Your task to perform on an android device: set the timer Image 0: 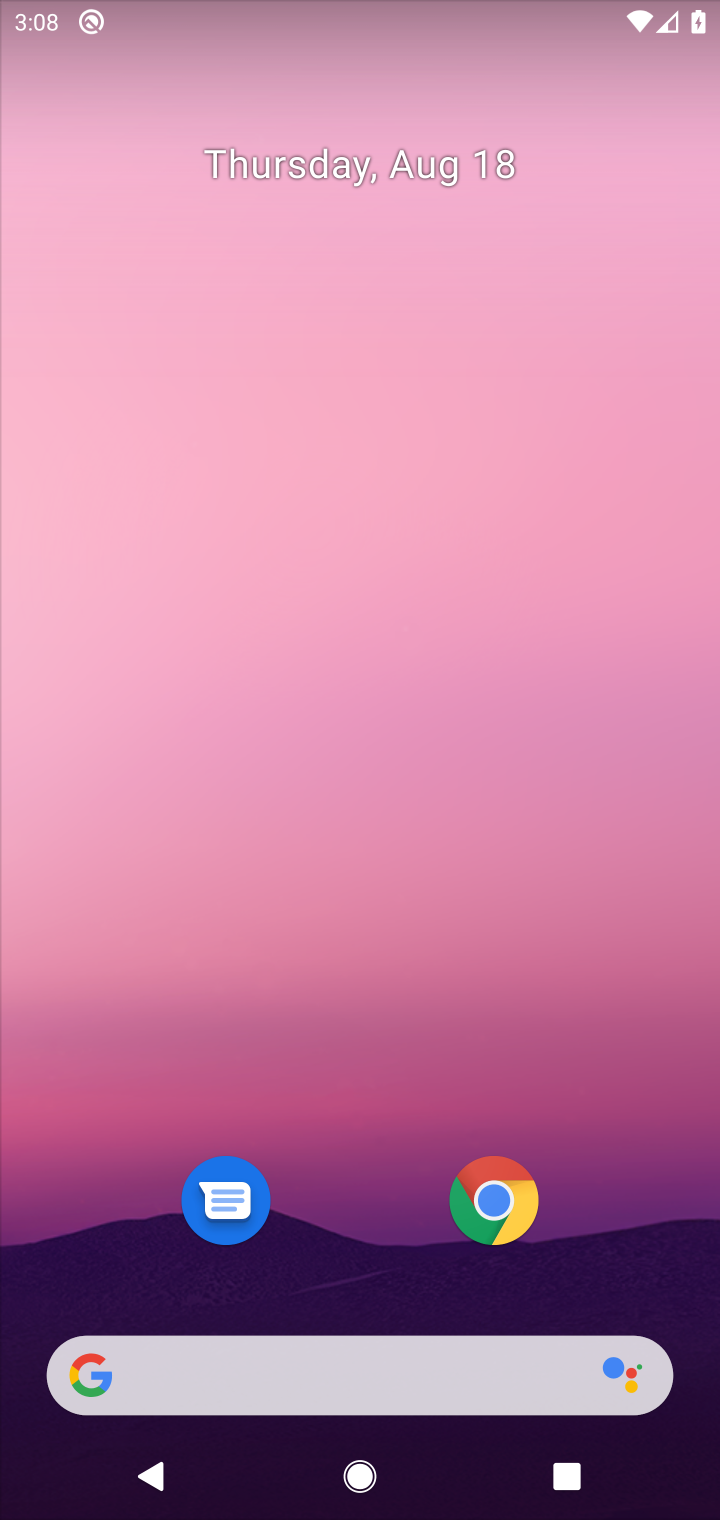
Step 0: drag from (423, 1233) to (586, 17)
Your task to perform on an android device: set the timer Image 1: 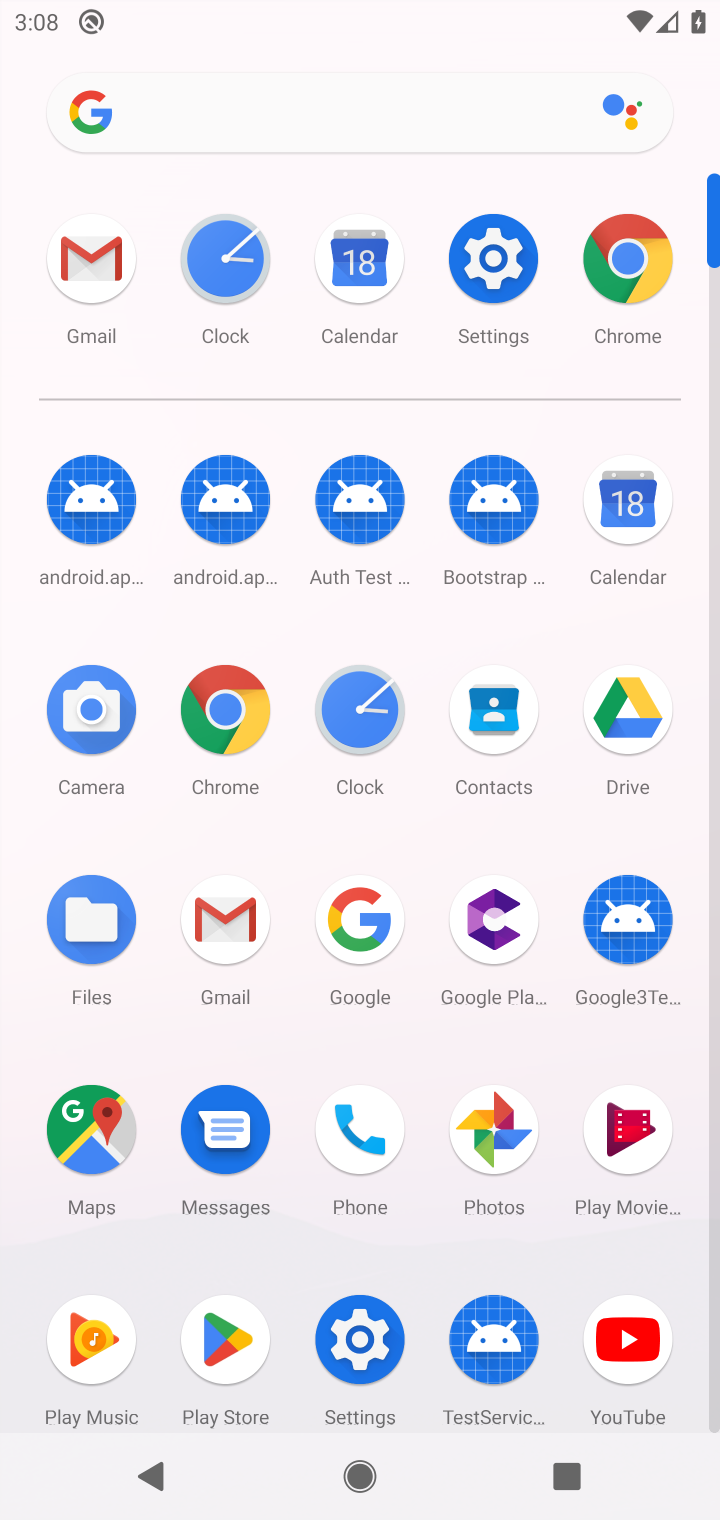
Step 1: click (357, 689)
Your task to perform on an android device: set the timer Image 2: 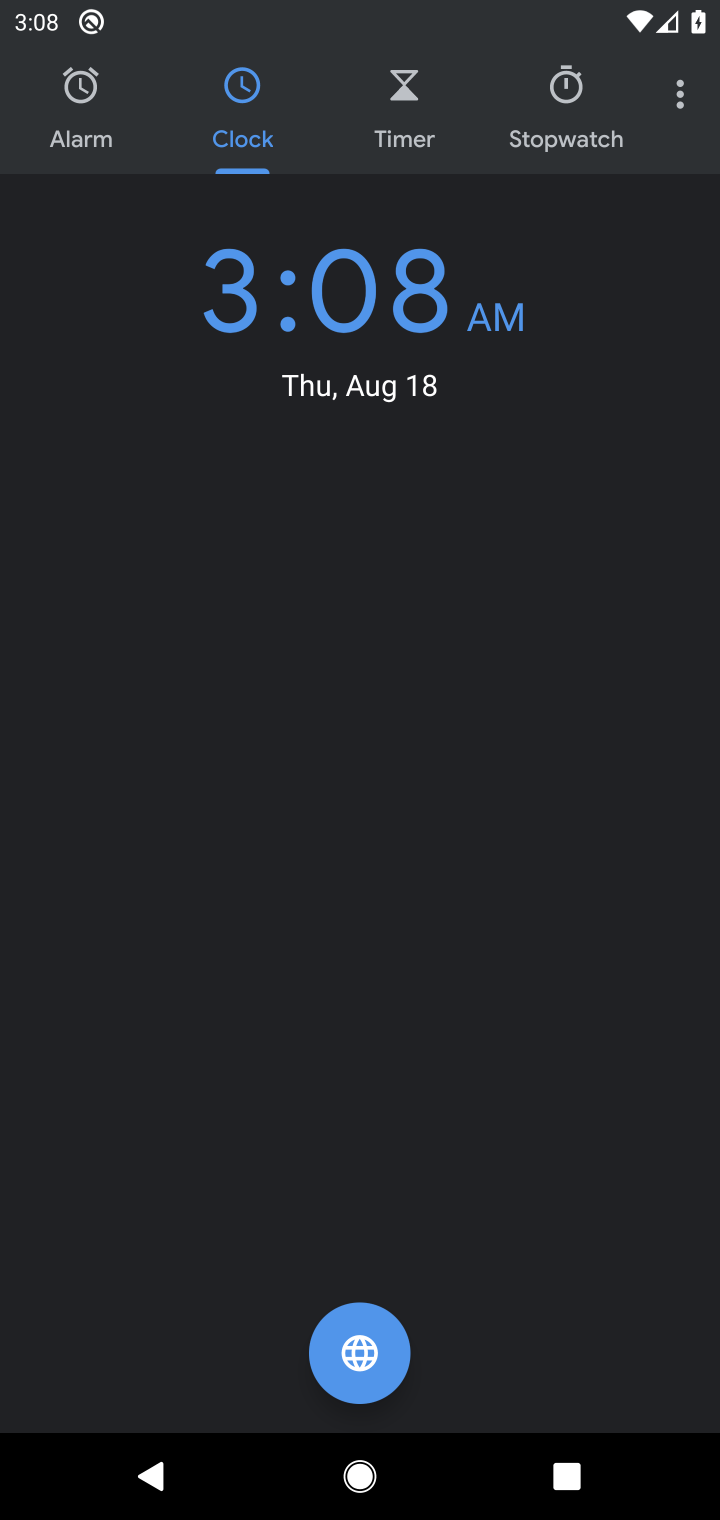
Step 2: click (413, 109)
Your task to perform on an android device: set the timer Image 3: 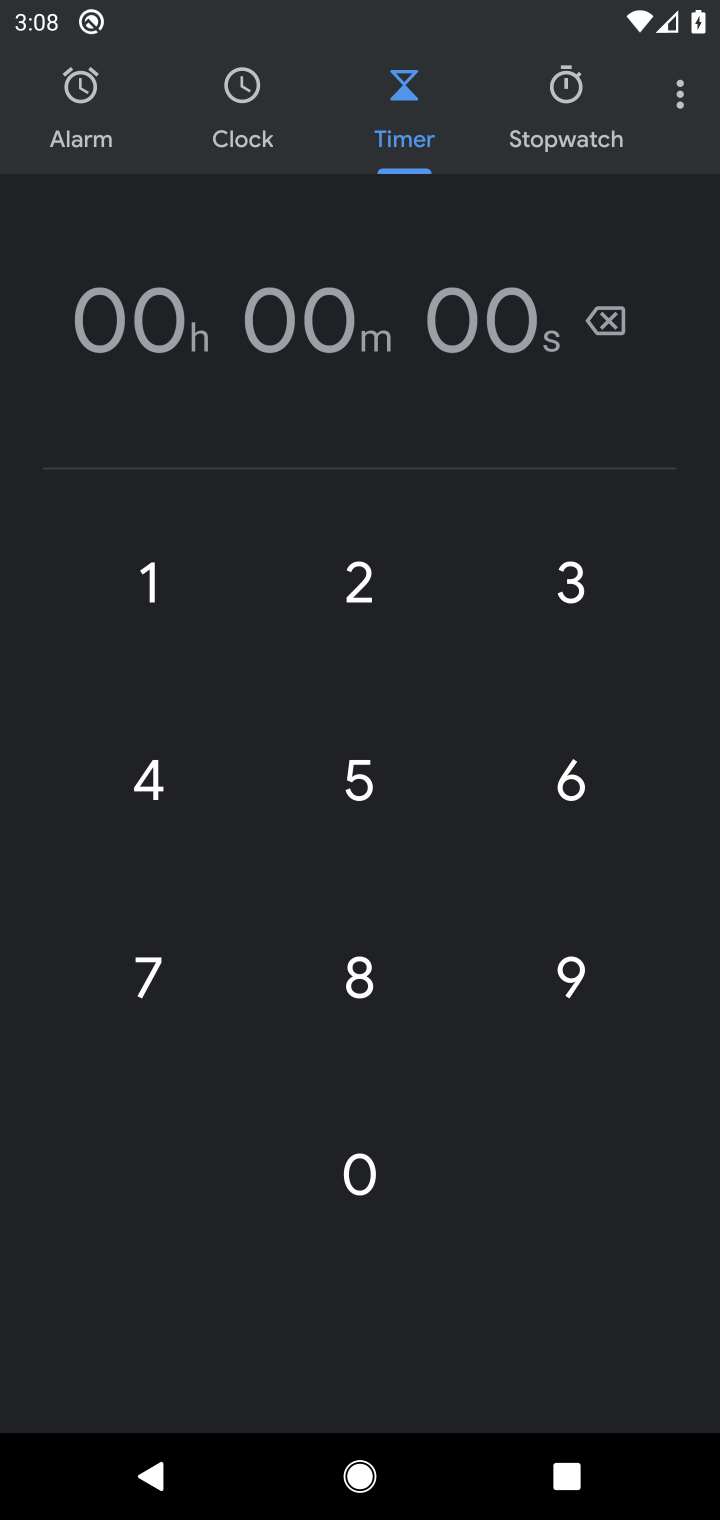
Step 3: click (170, 621)
Your task to perform on an android device: set the timer Image 4: 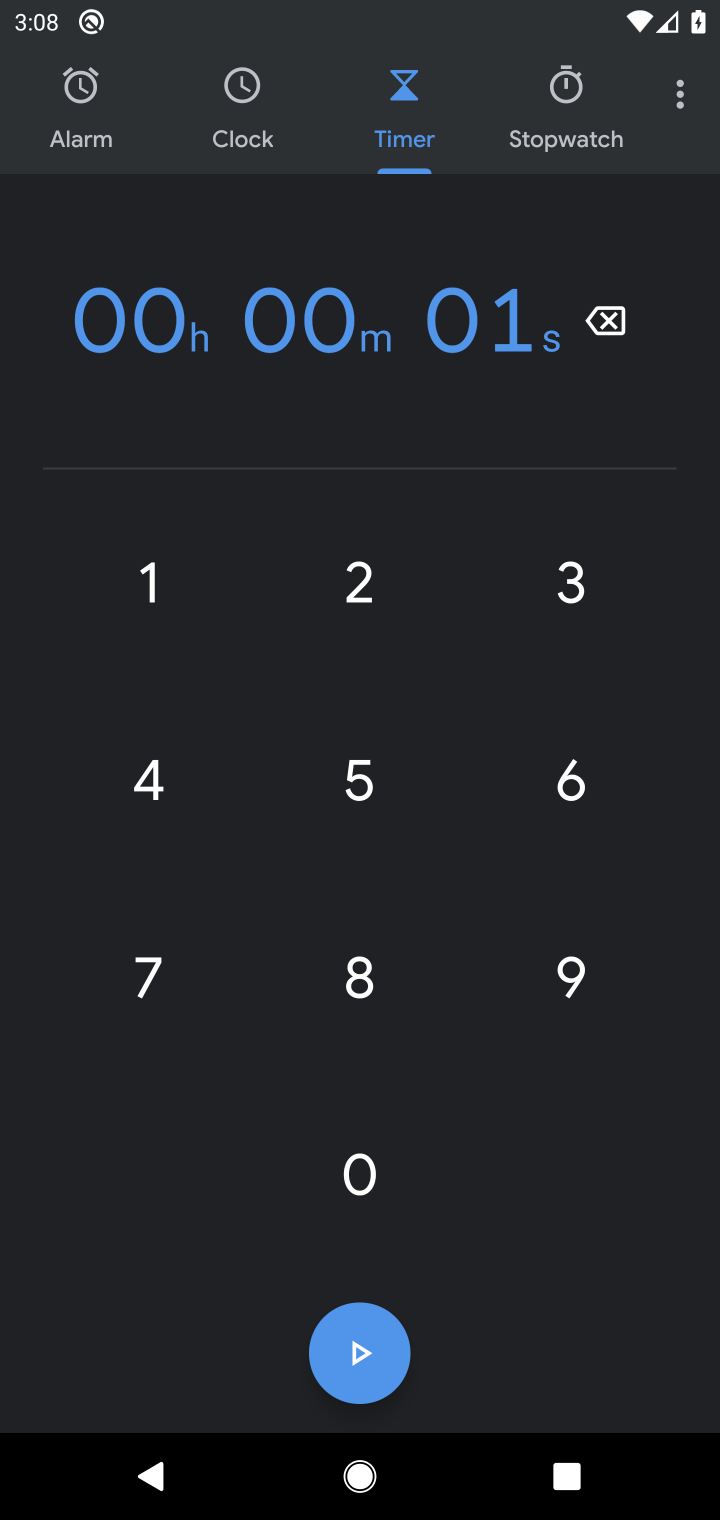
Step 4: click (394, 1014)
Your task to perform on an android device: set the timer Image 5: 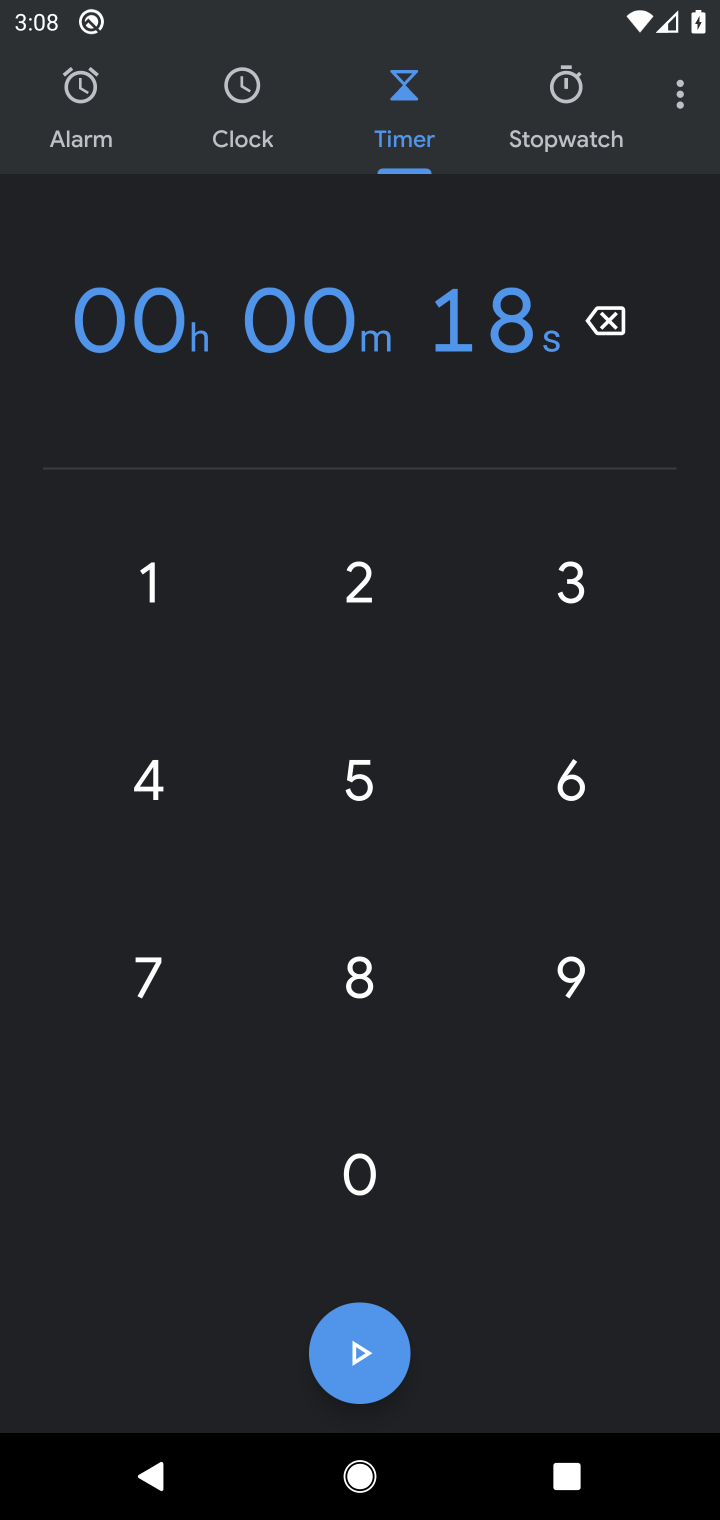
Step 5: click (389, 760)
Your task to perform on an android device: set the timer Image 6: 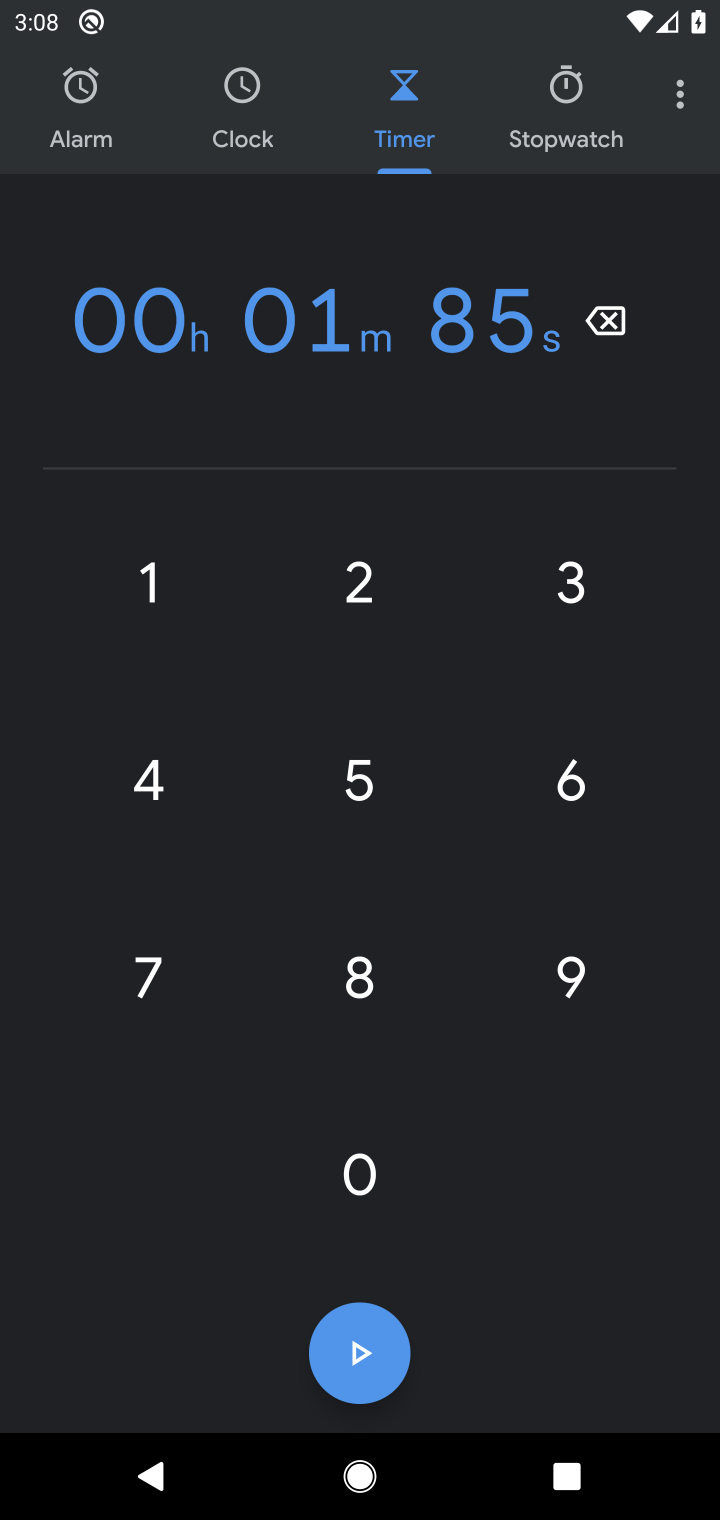
Step 6: click (340, 745)
Your task to perform on an android device: set the timer Image 7: 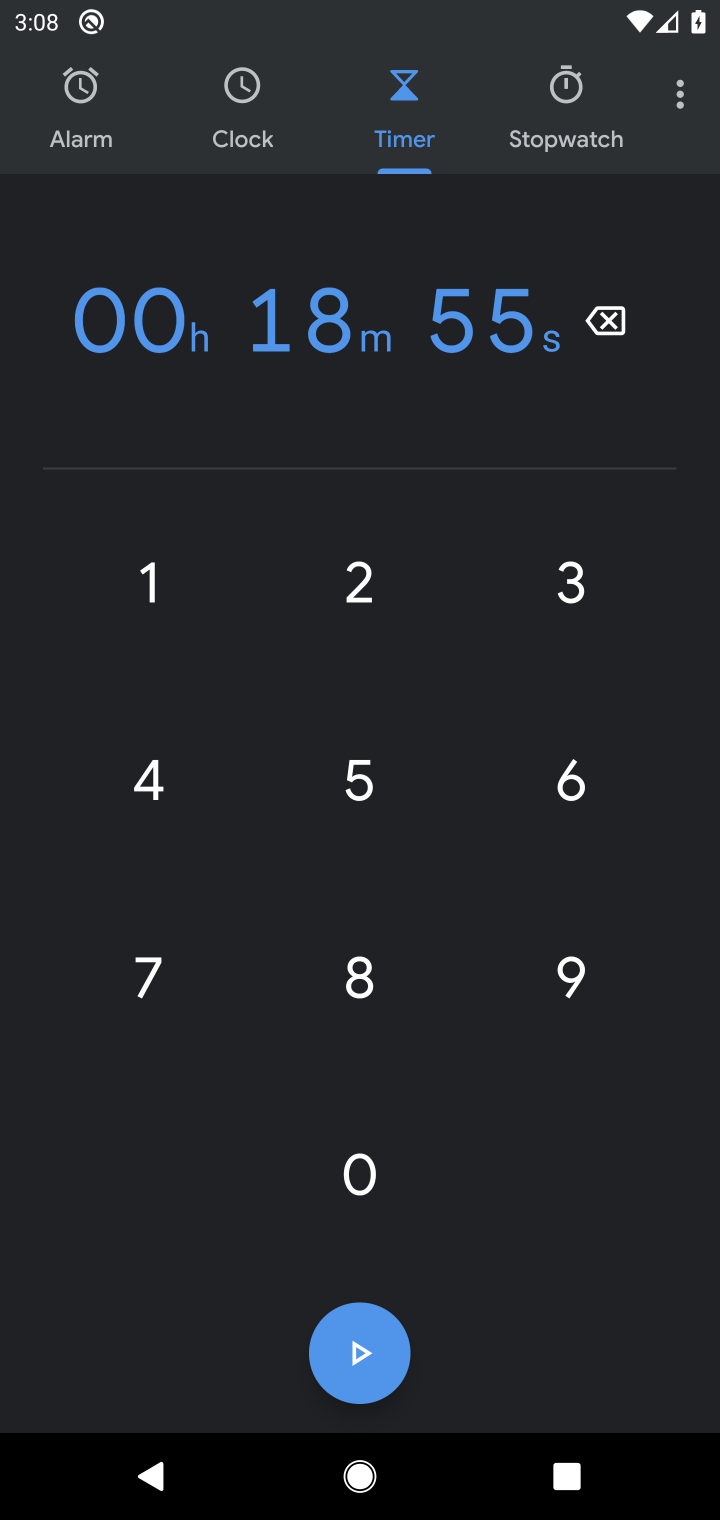
Step 7: click (344, 572)
Your task to perform on an android device: set the timer Image 8: 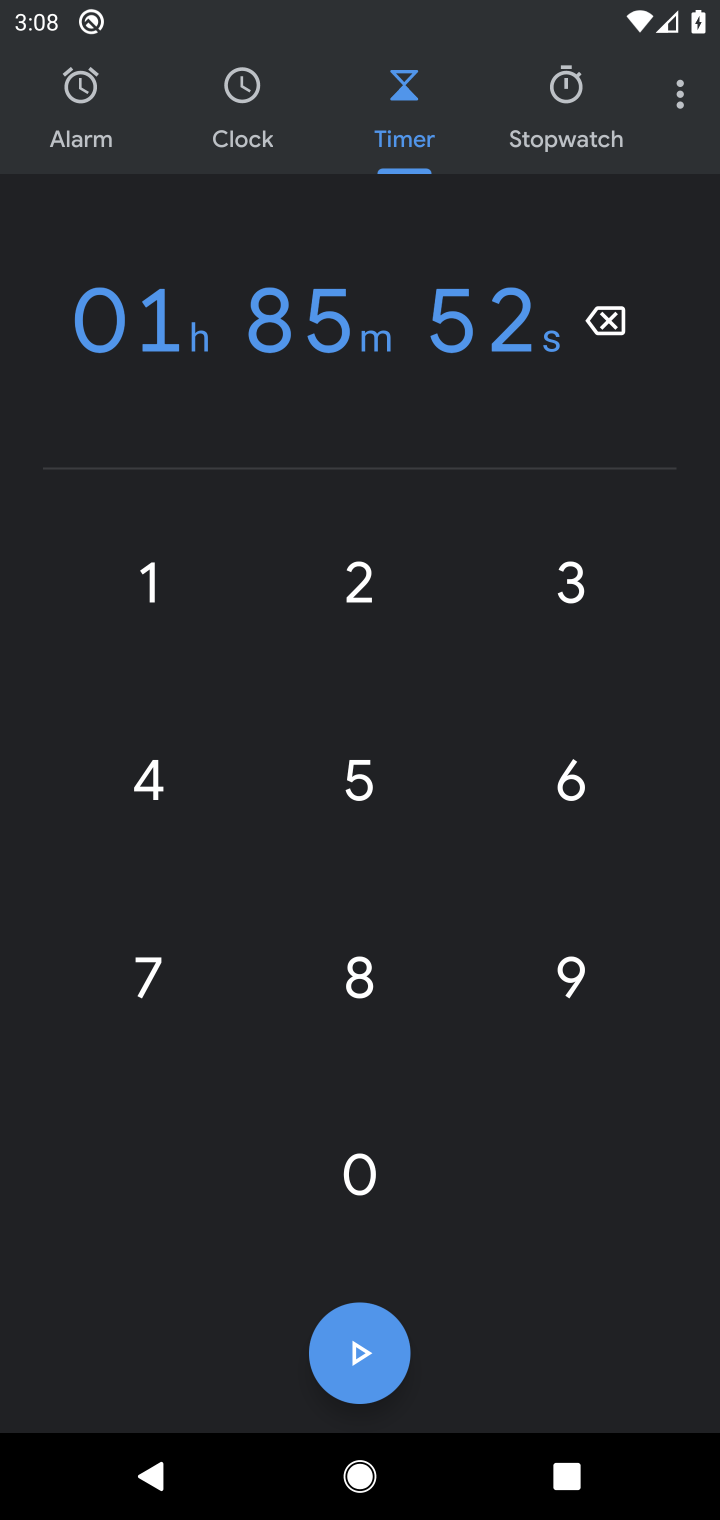
Step 8: click (372, 1377)
Your task to perform on an android device: set the timer Image 9: 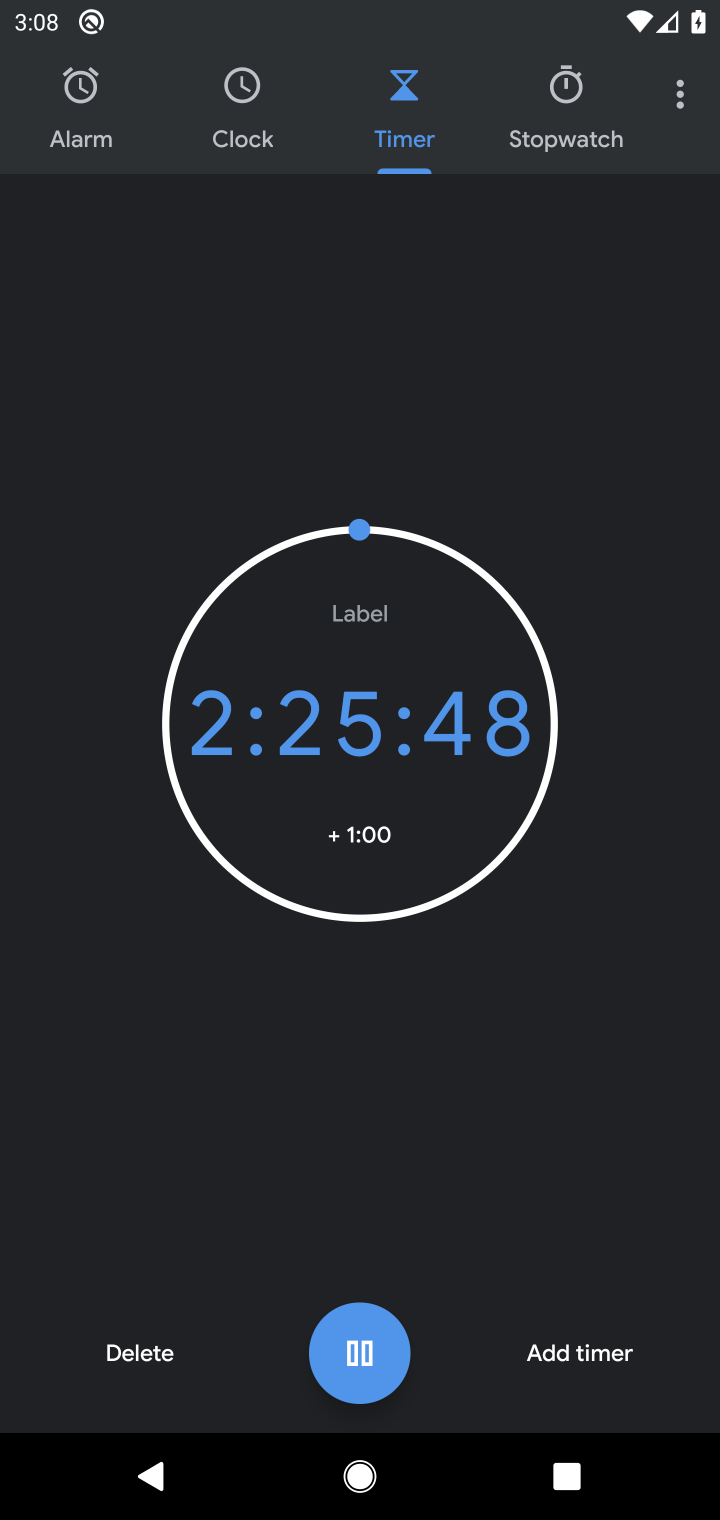
Step 9: task complete